Your task to perform on an android device: open app "Chime – Mobile Banking" (install if not already installed) Image 0: 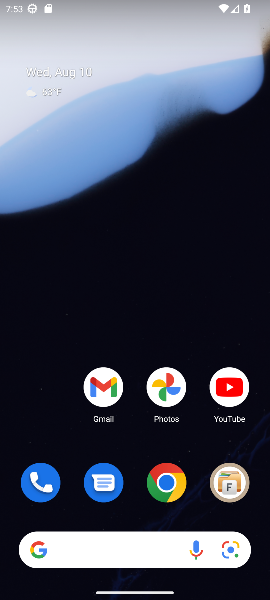
Step 0: drag from (134, 506) to (144, 28)
Your task to perform on an android device: open app "Chime – Mobile Banking" (install if not already installed) Image 1: 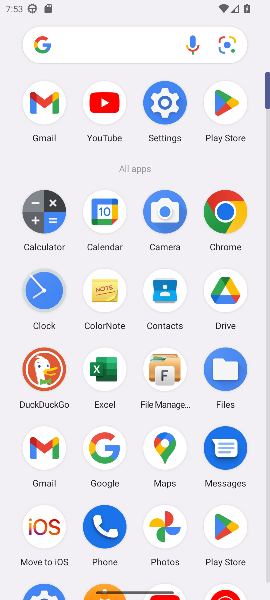
Step 1: click (223, 533)
Your task to perform on an android device: open app "Chime – Mobile Banking" (install if not already installed) Image 2: 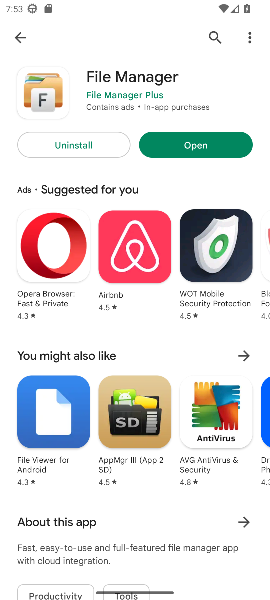
Step 2: click (13, 39)
Your task to perform on an android device: open app "Chime – Mobile Banking" (install if not already installed) Image 3: 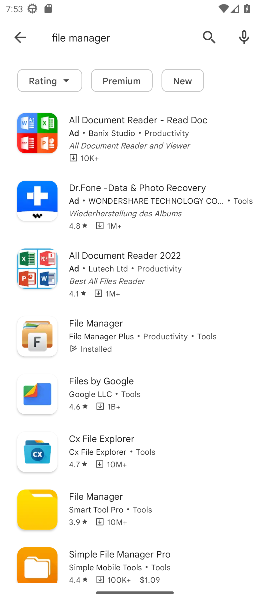
Step 3: click (88, 29)
Your task to perform on an android device: open app "Chime – Mobile Banking" (install if not already installed) Image 4: 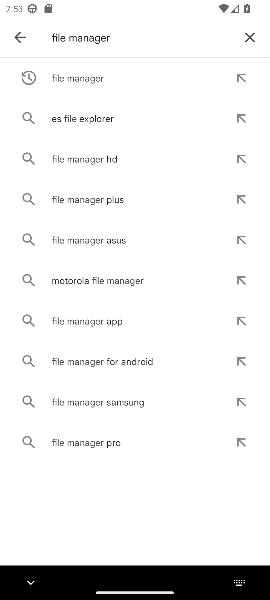
Step 4: click (253, 32)
Your task to perform on an android device: open app "Chime – Mobile Banking" (install if not already installed) Image 5: 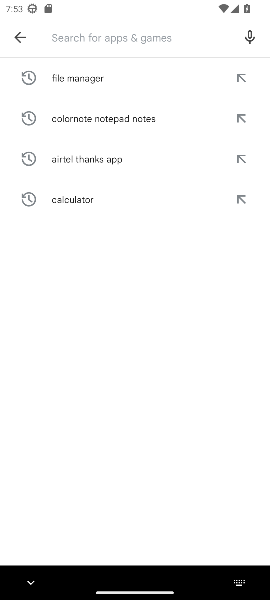
Step 5: type "Chik"
Your task to perform on an android device: open app "Chime – Mobile Banking" (install if not already installed) Image 6: 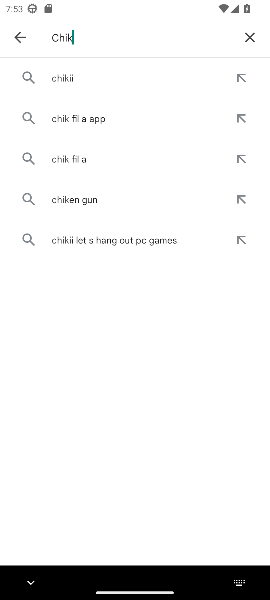
Step 6: click (251, 34)
Your task to perform on an android device: open app "Chime – Mobile Banking" (install if not already installed) Image 7: 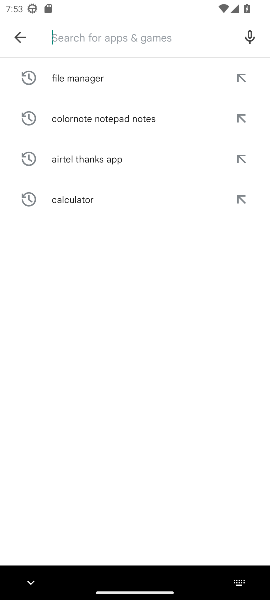
Step 7: type "chime"
Your task to perform on an android device: open app "Chime – Mobile Banking" (install if not already installed) Image 8: 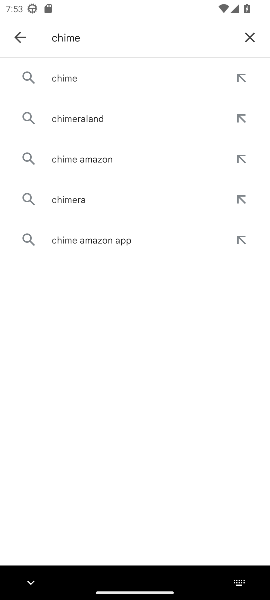
Step 8: click (73, 74)
Your task to perform on an android device: open app "Chime – Mobile Banking" (install if not already installed) Image 9: 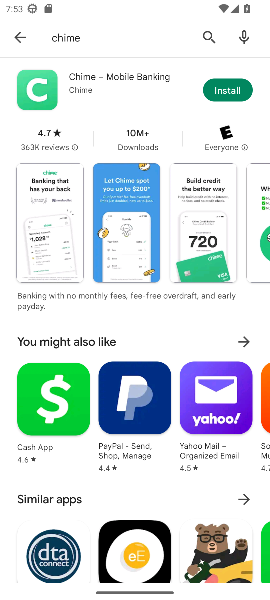
Step 9: click (227, 87)
Your task to perform on an android device: open app "Chime – Mobile Banking" (install if not already installed) Image 10: 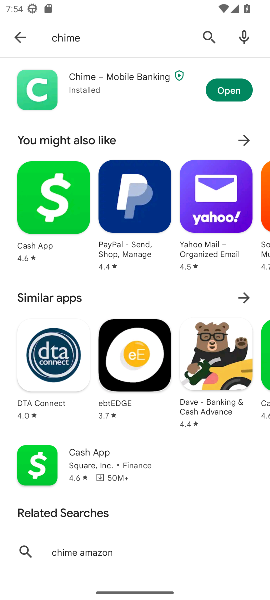
Step 10: click (241, 99)
Your task to perform on an android device: open app "Chime – Mobile Banking" (install if not already installed) Image 11: 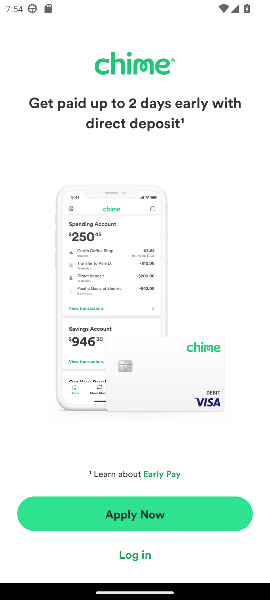
Step 11: click (147, 548)
Your task to perform on an android device: open app "Chime – Mobile Banking" (install if not already installed) Image 12: 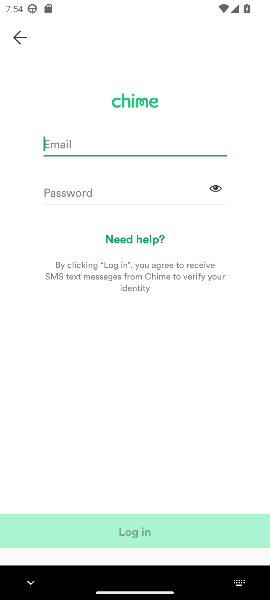
Step 12: task complete